Your task to perform on an android device: set the stopwatch Image 0: 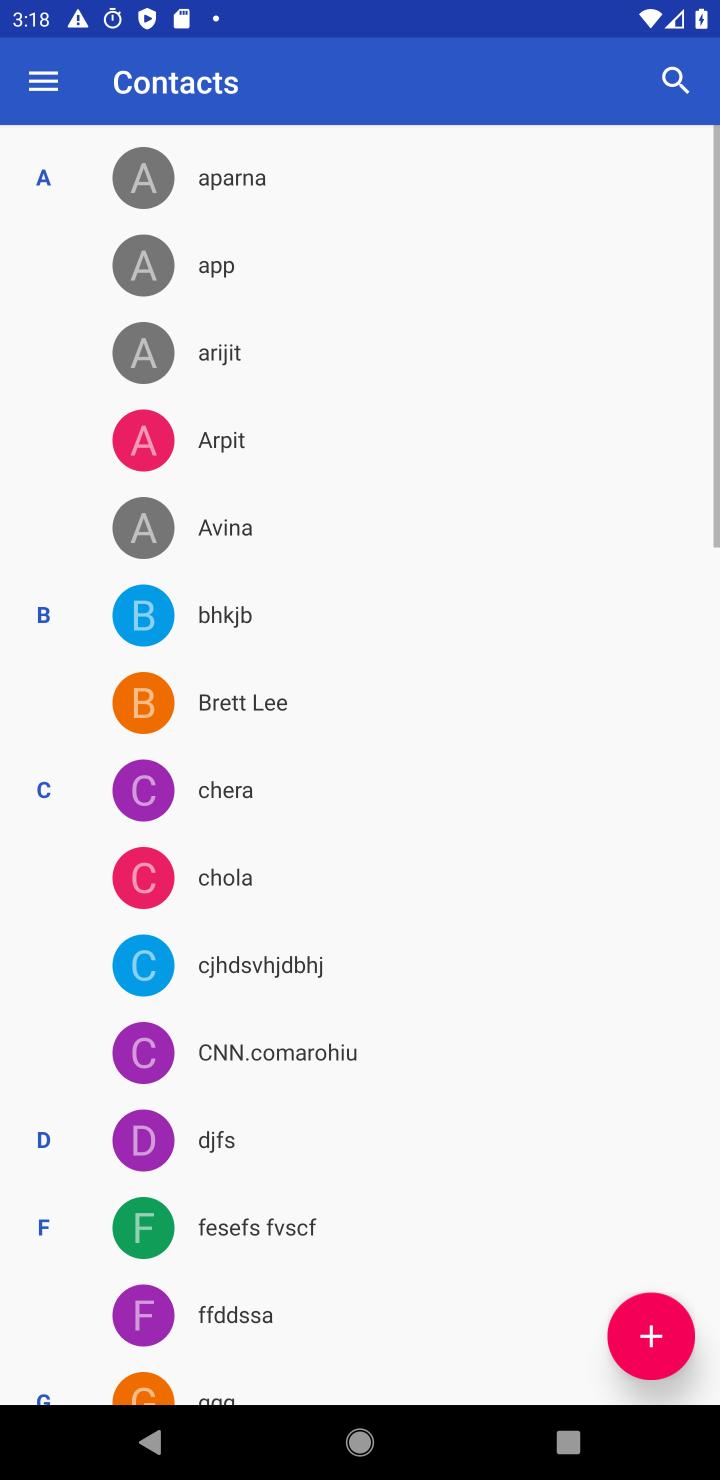
Step 0: press home button
Your task to perform on an android device: set the stopwatch Image 1: 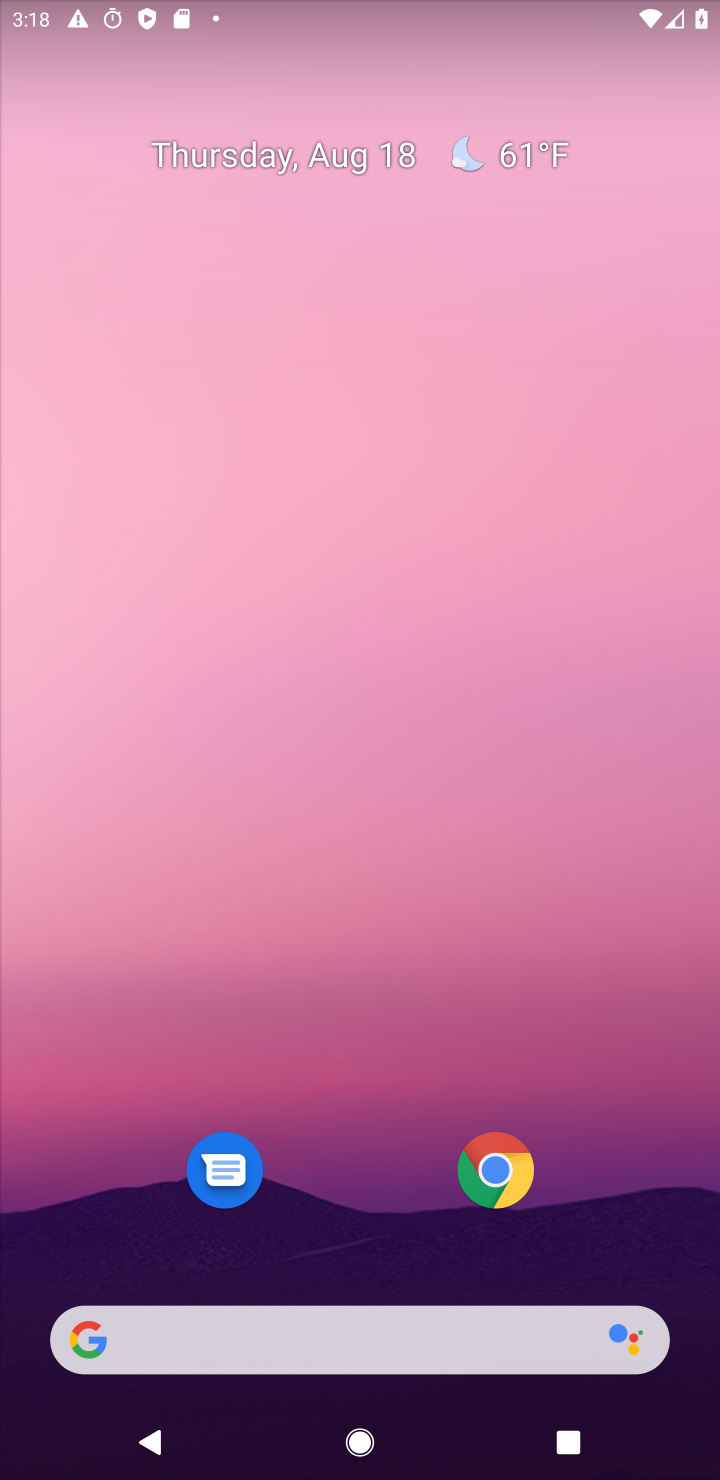
Step 1: task complete